Your task to perform on an android device: Set the phone to "Do not disturb". Image 0: 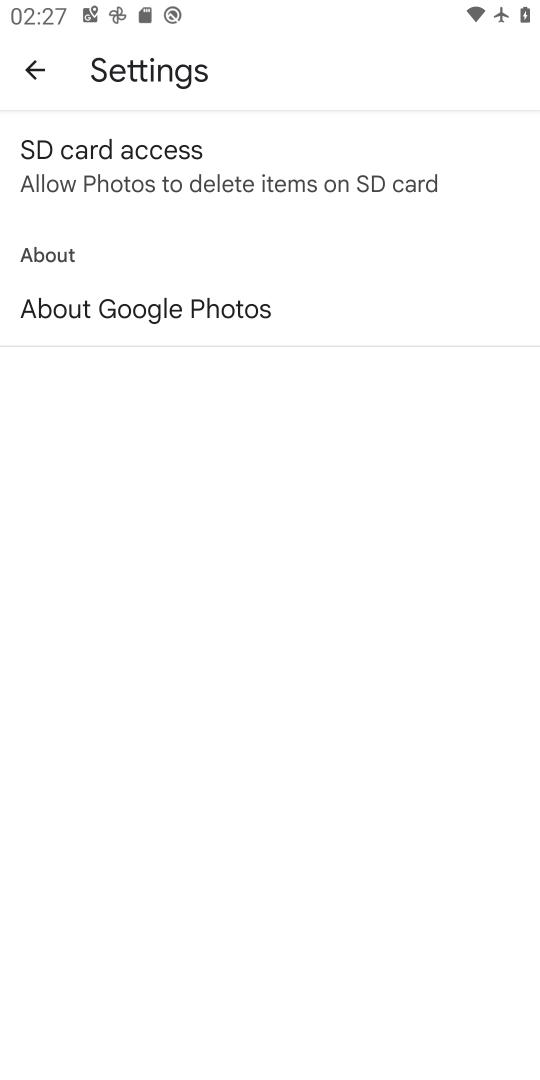
Step 0: press home button
Your task to perform on an android device: Set the phone to "Do not disturb". Image 1: 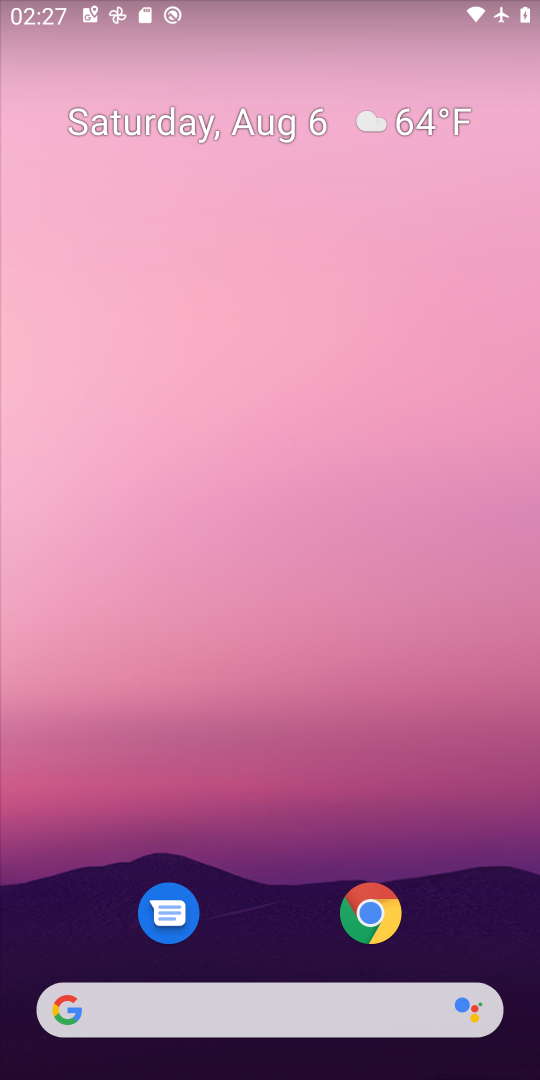
Step 1: drag from (278, 837) to (315, 283)
Your task to perform on an android device: Set the phone to "Do not disturb". Image 2: 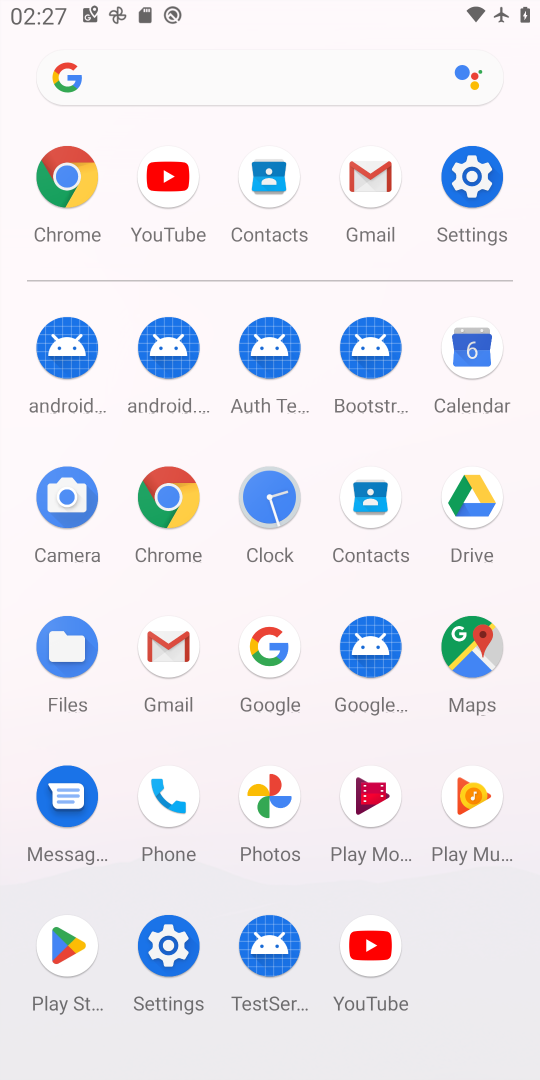
Step 2: click (472, 180)
Your task to perform on an android device: Set the phone to "Do not disturb". Image 3: 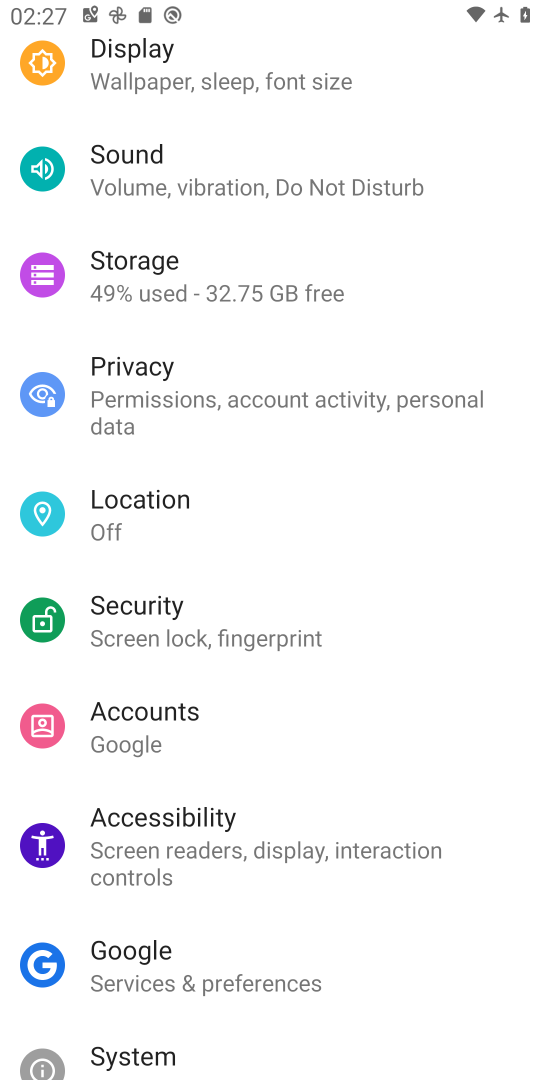
Step 3: drag from (469, 257) to (480, 385)
Your task to perform on an android device: Set the phone to "Do not disturb". Image 4: 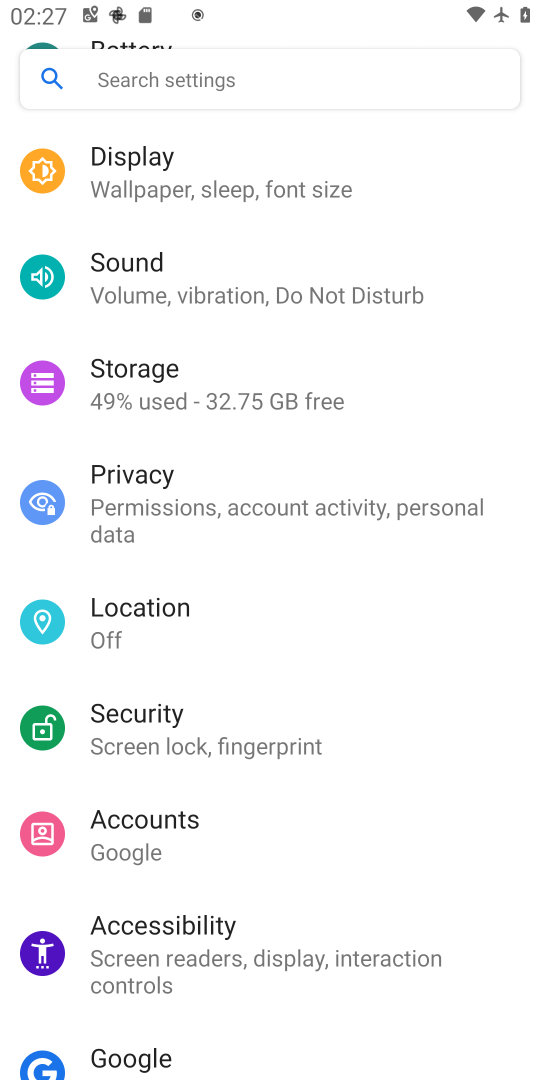
Step 4: drag from (468, 237) to (466, 365)
Your task to perform on an android device: Set the phone to "Do not disturb". Image 5: 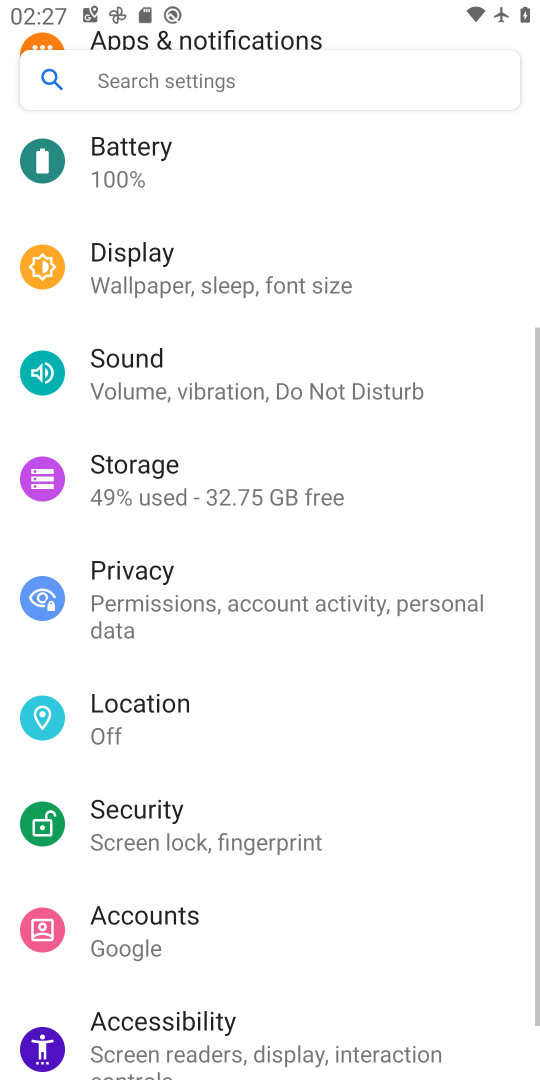
Step 5: drag from (480, 175) to (487, 332)
Your task to perform on an android device: Set the phone to "Do not disturb". Image 6: 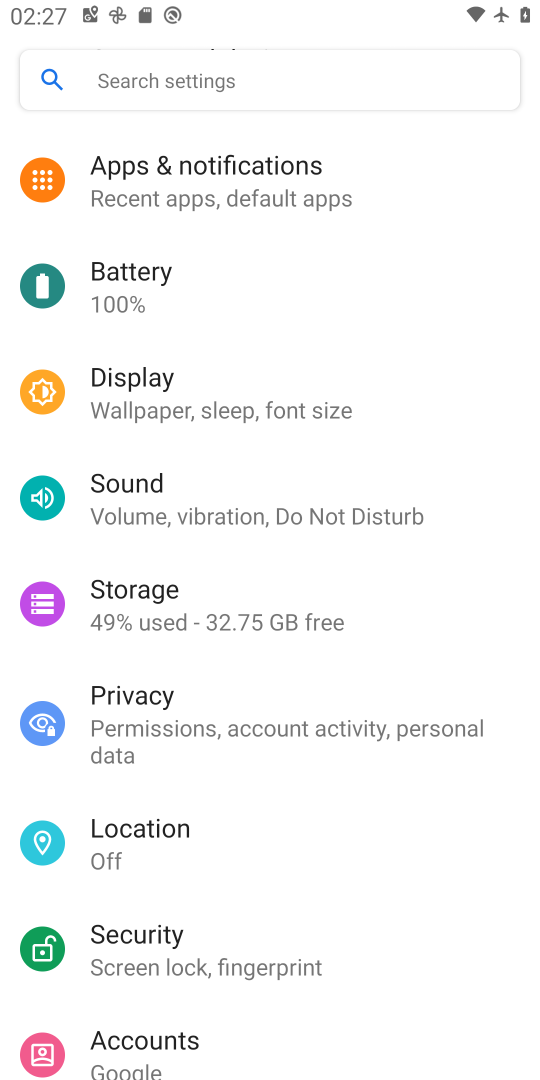
Step 6: drag from (487, 178) to (499, 366)
Your task to perform on an android device: Set the phone to "Do not disturb". Image 7: 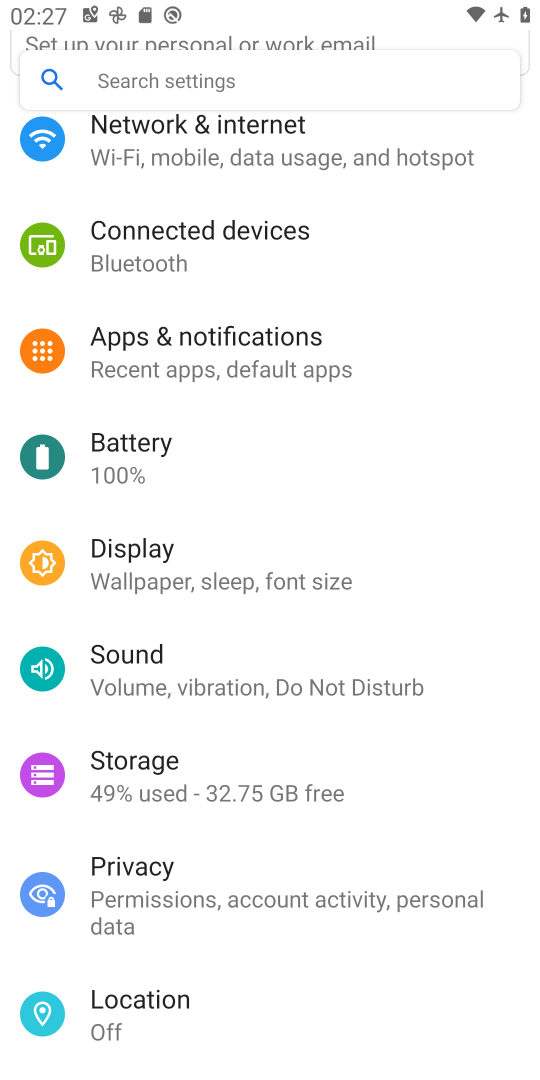
Step 7: drag from (484, 190) to (517, 515)
Your task to perform on an android device: Set the phone to "Do not disturb". Image 8: 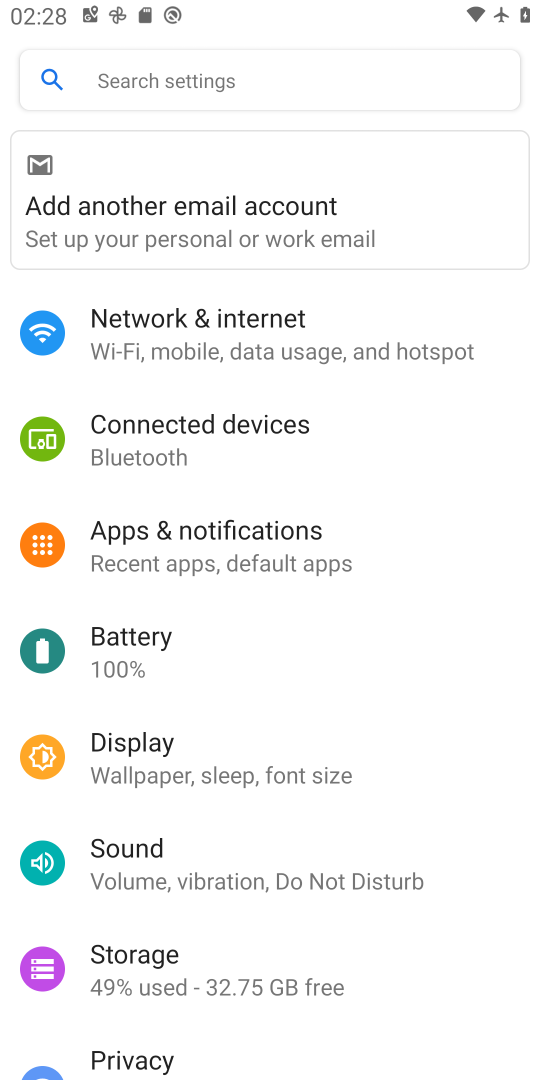
Step 8: click (258, 857)
Your task to perform on an android device: Set the phone to "Do not disturb". Image 9: 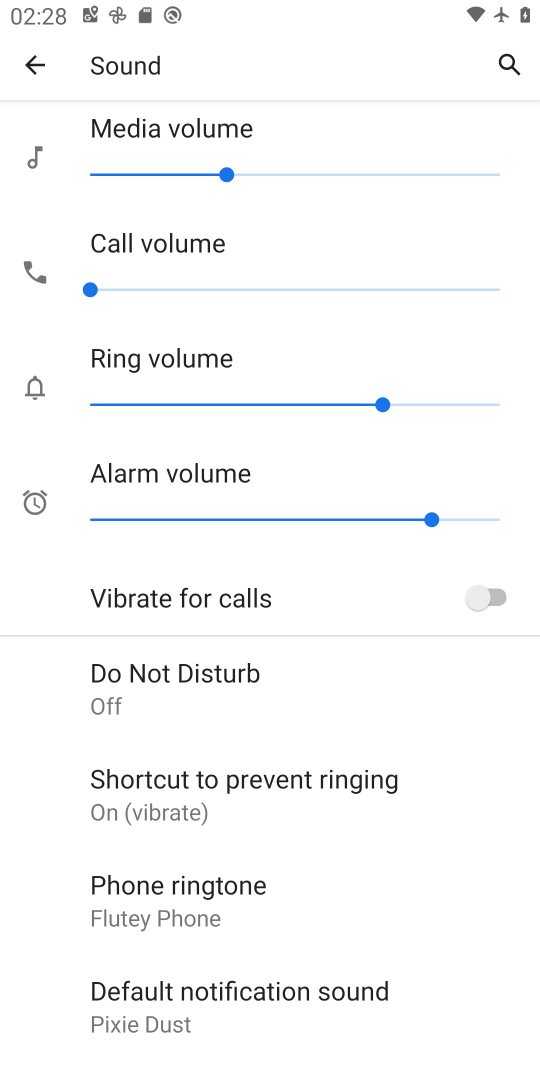
Step 9: click (233, 661)
Your task to perform on an android device: Set the phone to "Do not disturb". Image 10: 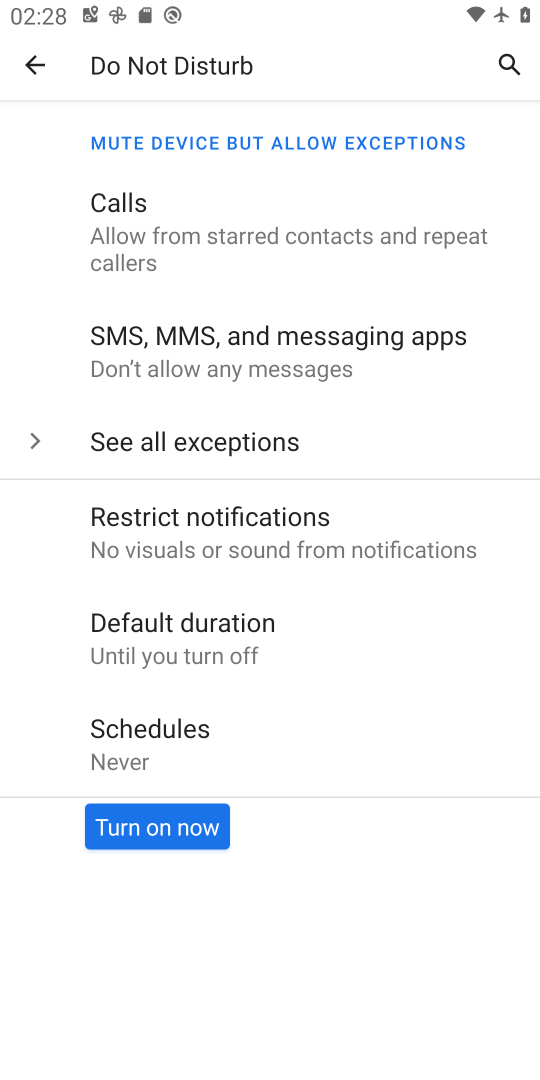
Step 10: click (167, 825)
Your task to perform on an android device: Set the phone to "Do not disturb". Image 11: 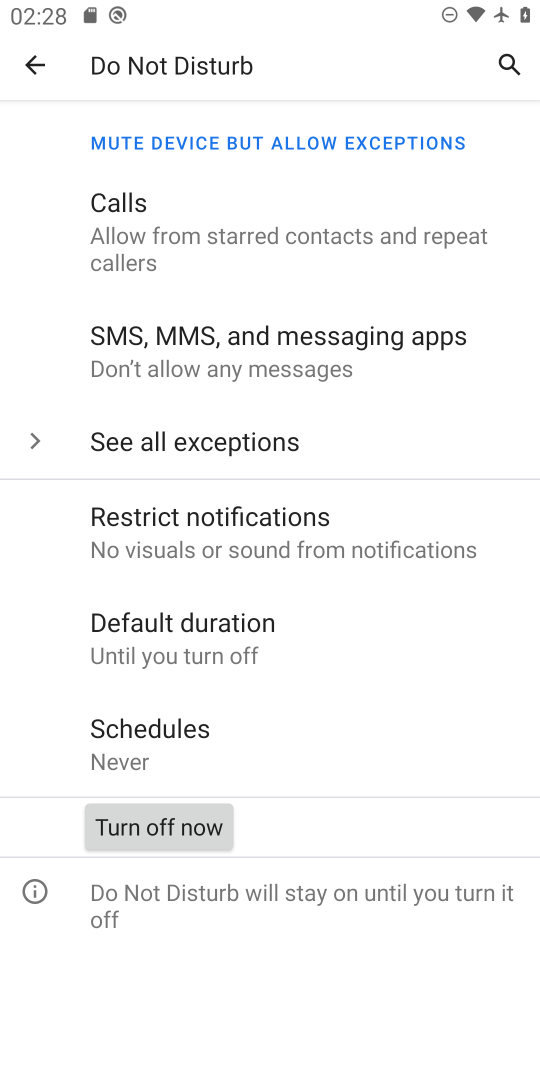
Step 11: task complete